Your task to perform on an android device: uninstall "Expedia: Hotels, Flights & Car" Image 0: 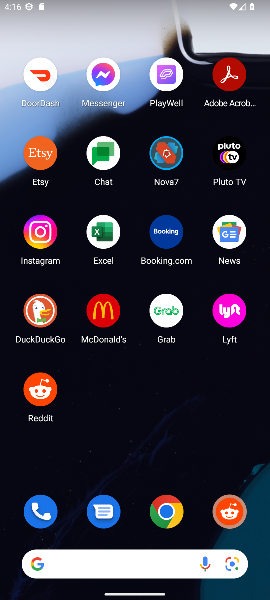
Step 0: drag from (22, 461) to (60, 201)
Your task to perform on an android device: uninstall "Expedia: Hotels, Flights & Car" Image 1: 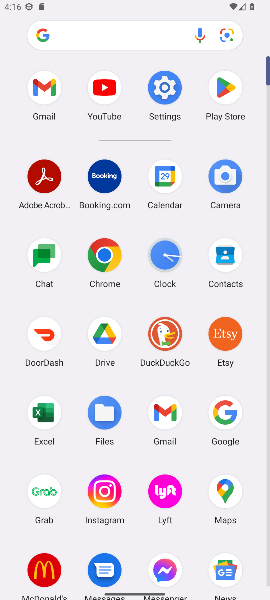
Step 1: click (217, 90)
Your task to perform on an android device: uninstall "Expedia: Hotels, Flights & Car" Image 2: 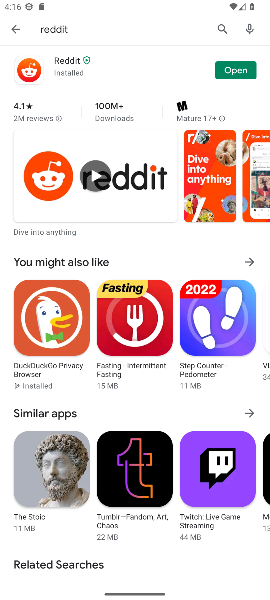
Step 2: click (12, 30)
Your task to perform on an android device: uninstall "Expedia: Hotels, Flights & Car" Image 3: 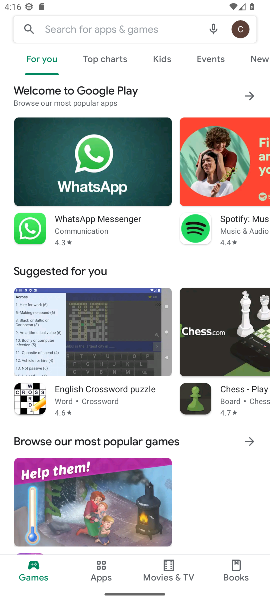
Step 3: click (89, 21)
Your task to perform on an android device: uninstall "Expedia: Hotels, Flights & Car" Image 4: 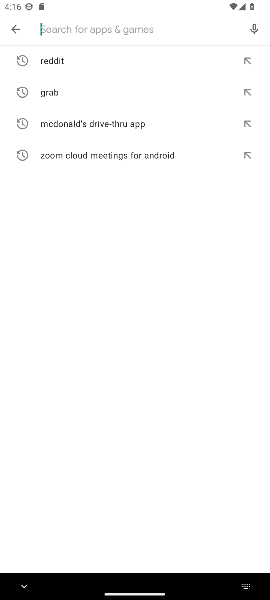
Step 4: type "Expedia: Hotels, Flights & Car"
Your task to perform on an android device: uninstall "Expedia: Hotels, Flights & Car" Image 5: 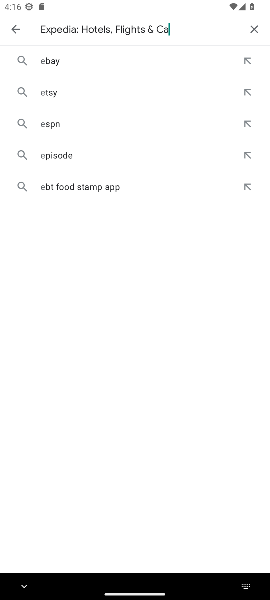
Step 5: type ""
Your task to perform on an android device: uninstall "Expedia: Hotels, Flights & Car" Image 6: 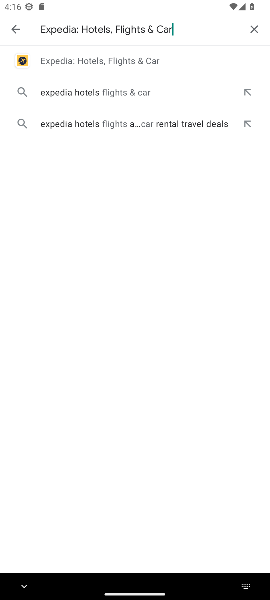
Step 6: click (80, 60)
Your task to perform on an android device: uninstall "Expedia: Hotels, Flights & Car" Image 7: 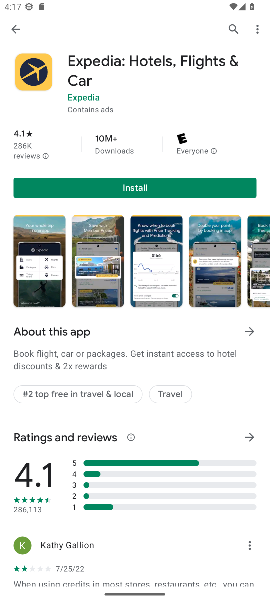
Step 7: click (121, 186)
Your task to perform on an android device: uninstall "Expedia: Hotels, Flights & Car" Image 8: 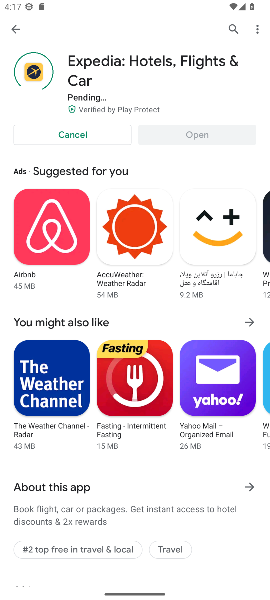
Step 8: click (86, 131)
Your task to perform on an android device: uninstall "Expedia: Hotels, Flights & Car" Image 9: 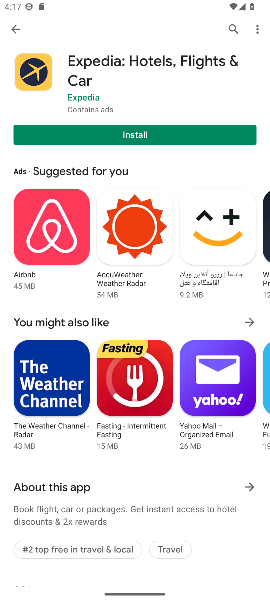
Step 9: task complete